Your task to perform on an android device: open a bookmark in the chrome app Image 0: 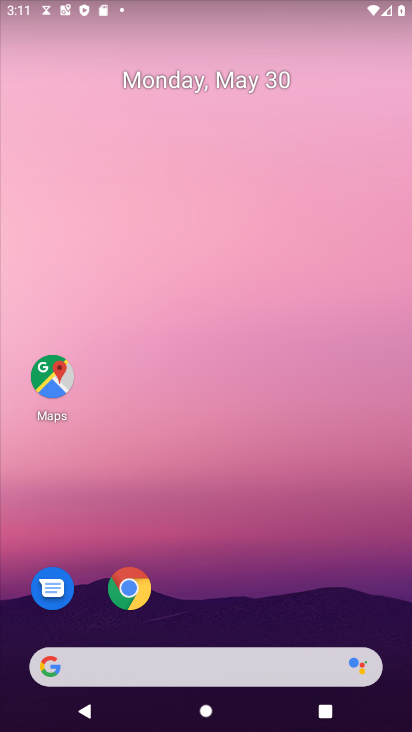
Step 0: drag from (305, 550) to (260, 54)
Your task to perform on an android device: open a bookmark in the chrome app Image 1: 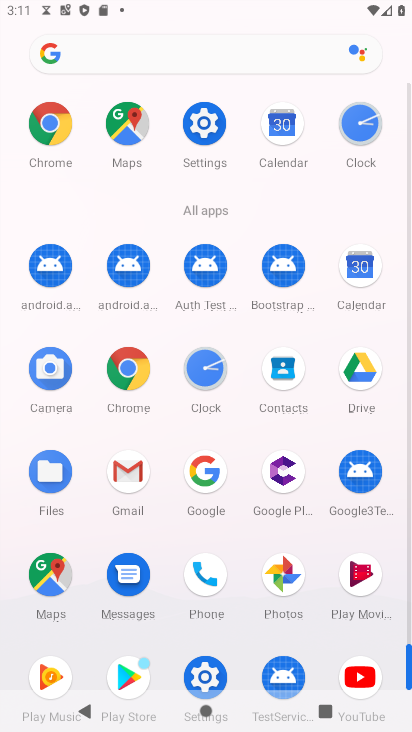
Step 1: drag from (16, 547) to (19, 236)
Your task to perform on an android device: open a bookmark in the chrome app Image 2: 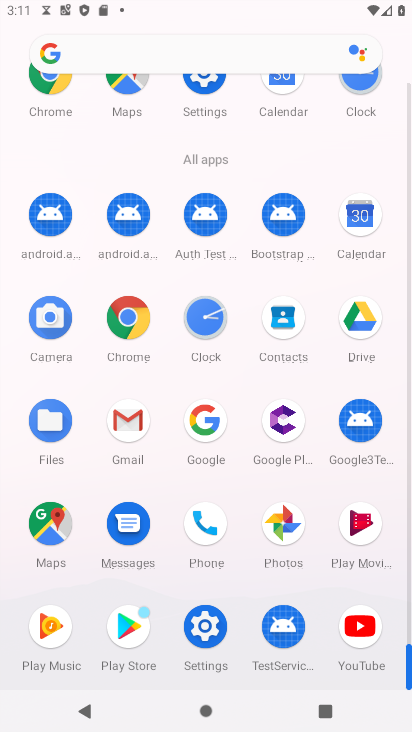
Step 2: click (125, 318)
Your task to perform on an android device: open a bookmark in the chrome app Image 3: 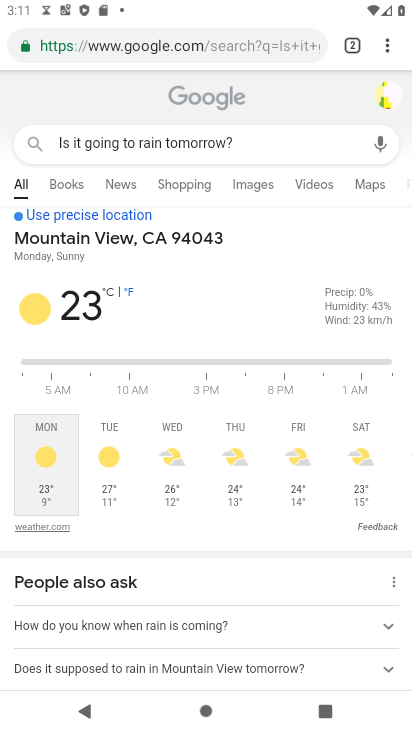
Step 3: task complete